Your task to perform on an android device: Open Google Maps Image 0: 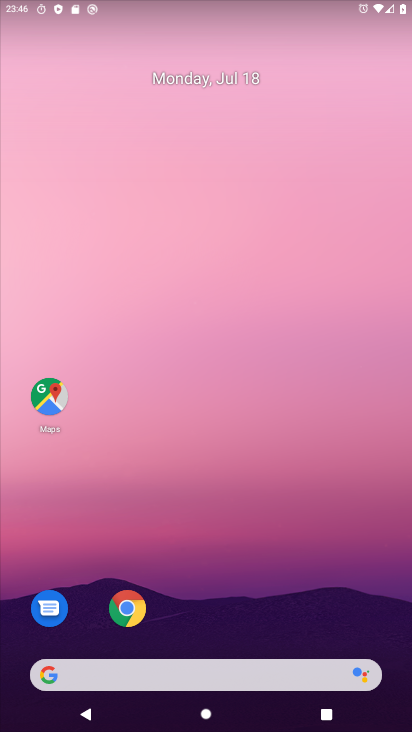
Step 0: click (49, 397)
Your task to perform on an android device: Open Google Maps Image 1: 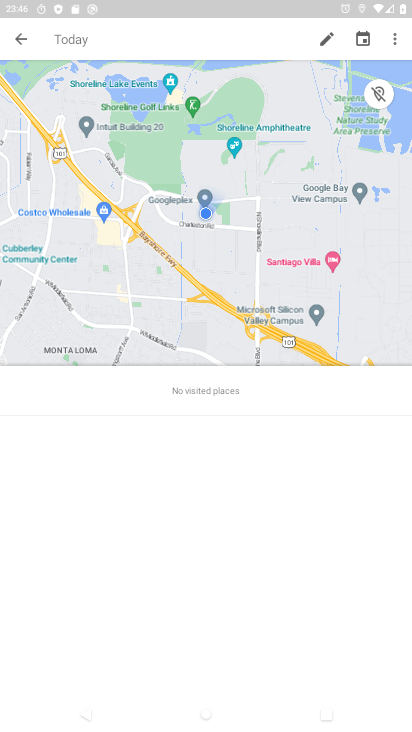
Step 1: task complete